Your task to perform on an android device: uninstall "Facebook Lite" Image 0: 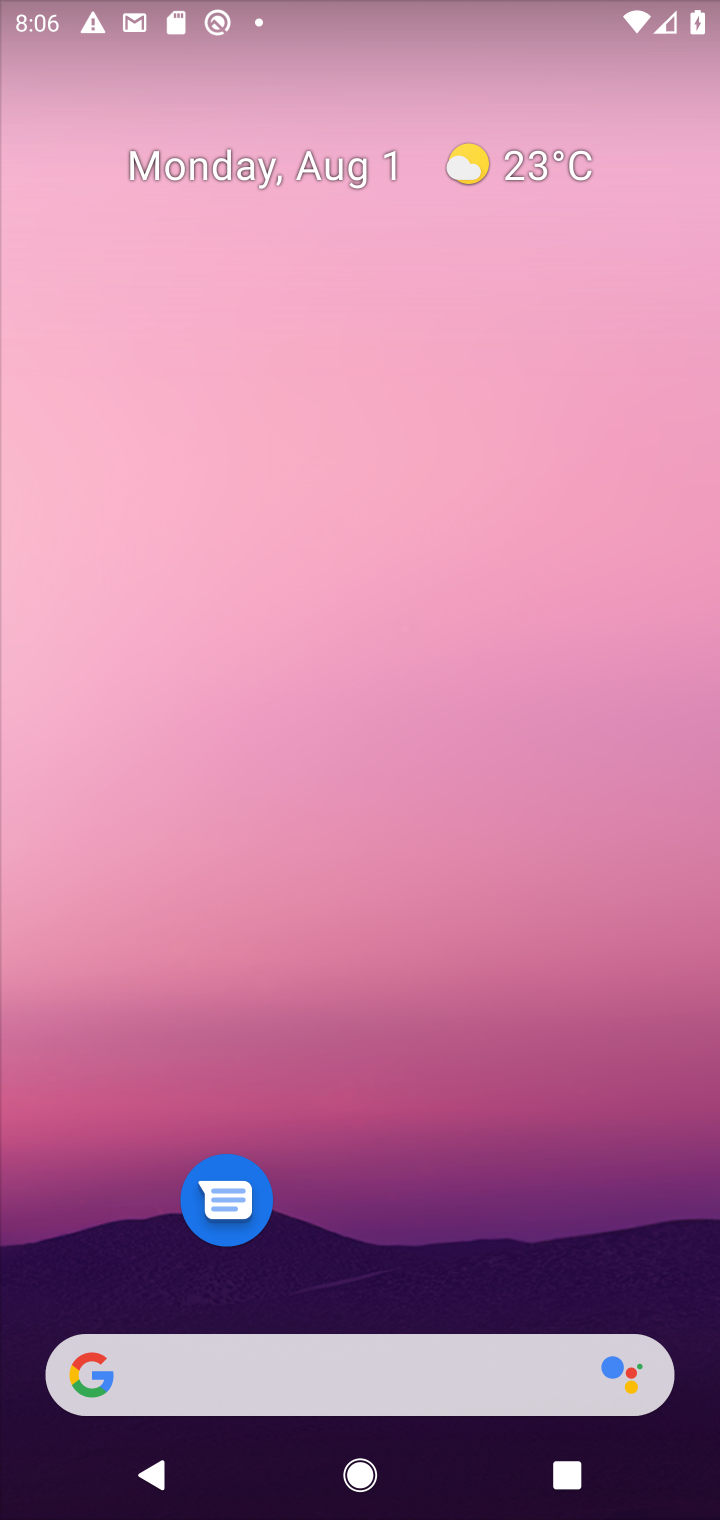
Step 0: press home button
Your task to perform on an android device: uninstall "Facebook Lite" Image 1: 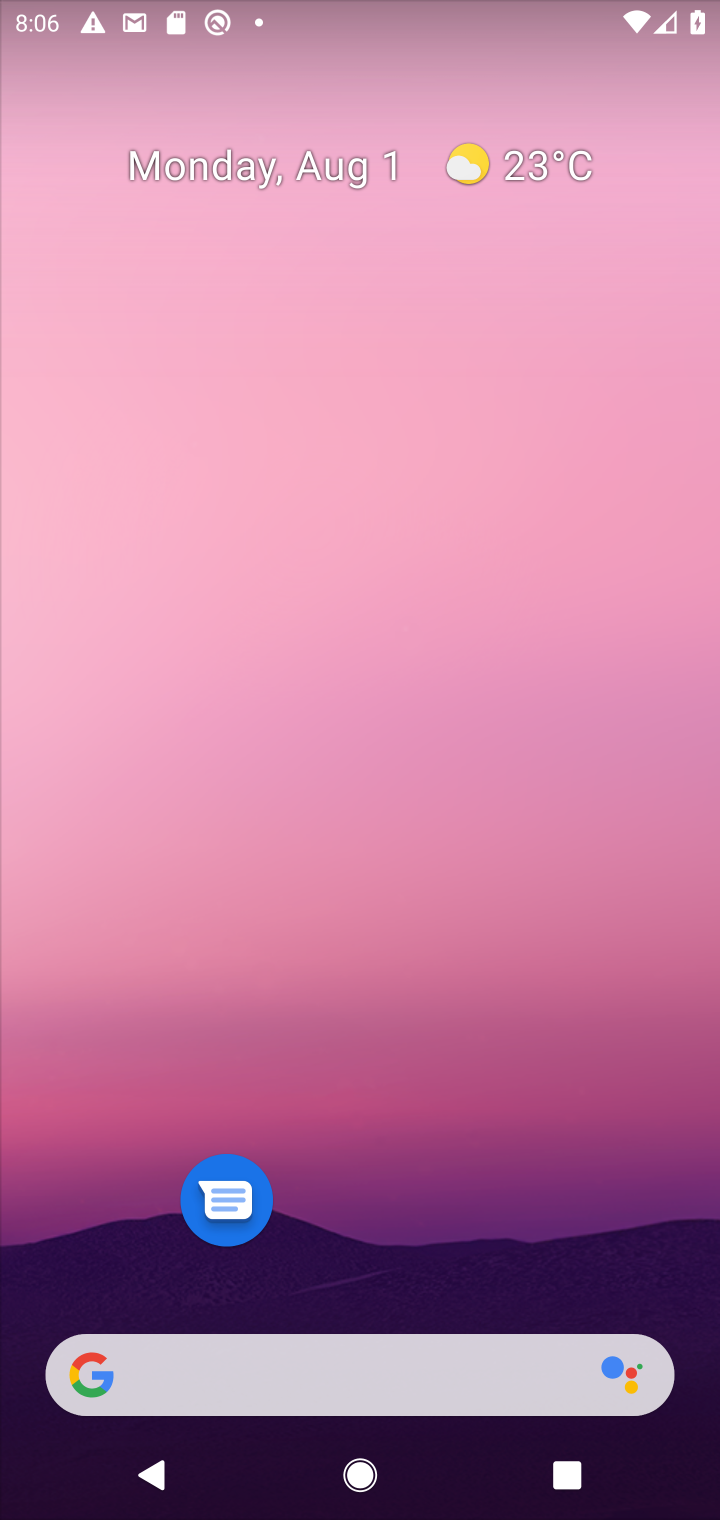
Step 1: drag from (424, 1176) to (536, 82)
Your task to perform on an android device: uninstall "Facebook Lite" Image 2: 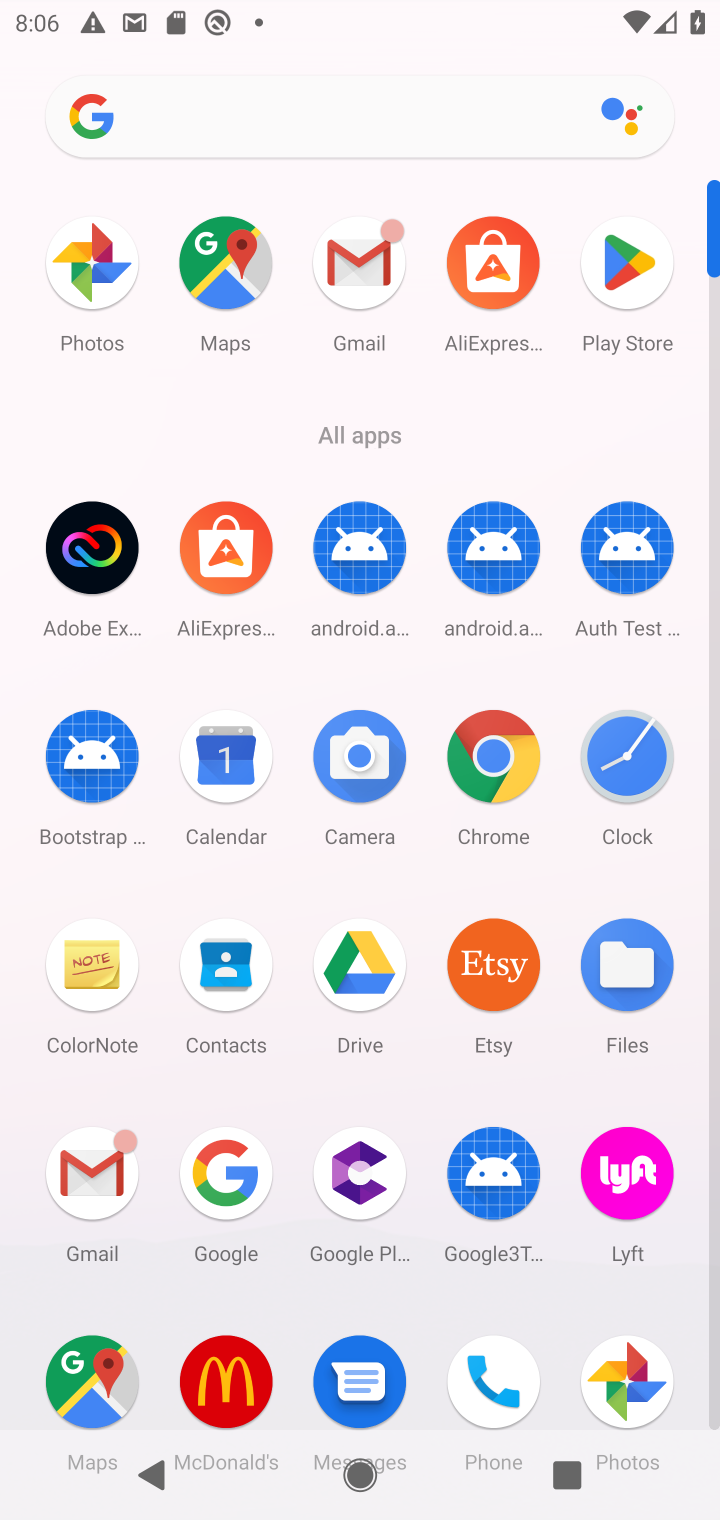
Step 2: click (626, 449)
Your task to perform on an android device: uninstall "Facebook Lite" Image 3: 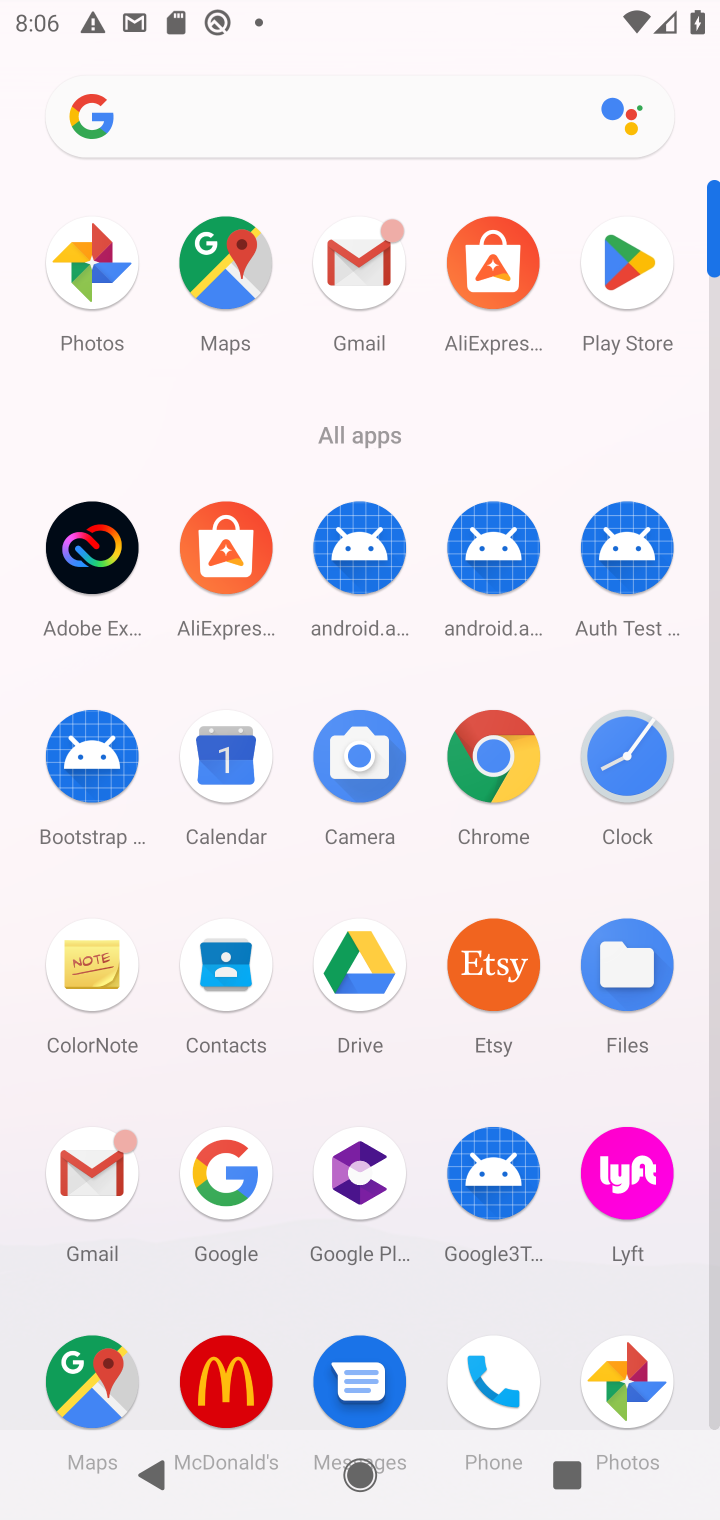
Step 3: click (647, 269)
Your task to perform on an android device: uninstall "Facebook Lite" Image 4: 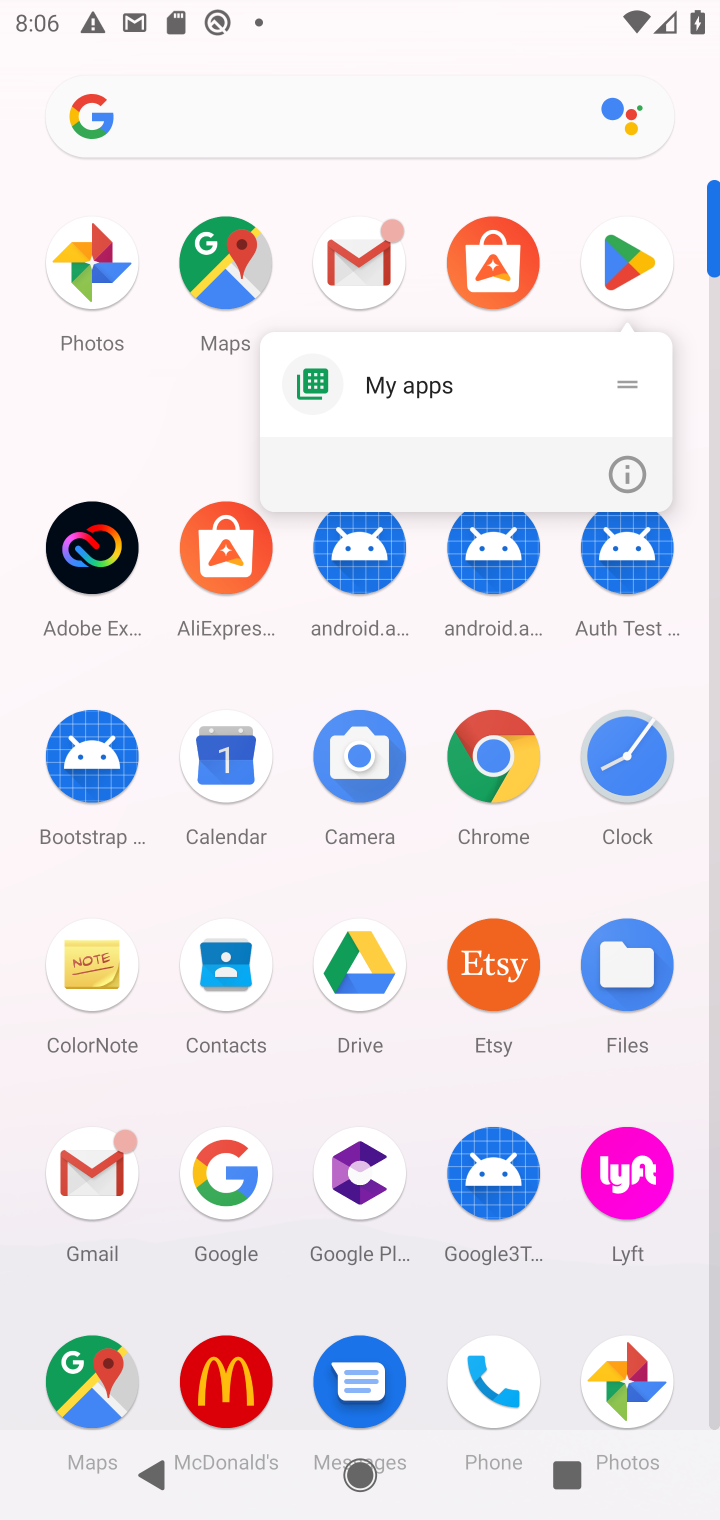
Step 4: click (628, 264)
Your task to perform on an android device: uninstall "Facebook Lite" Image 5: 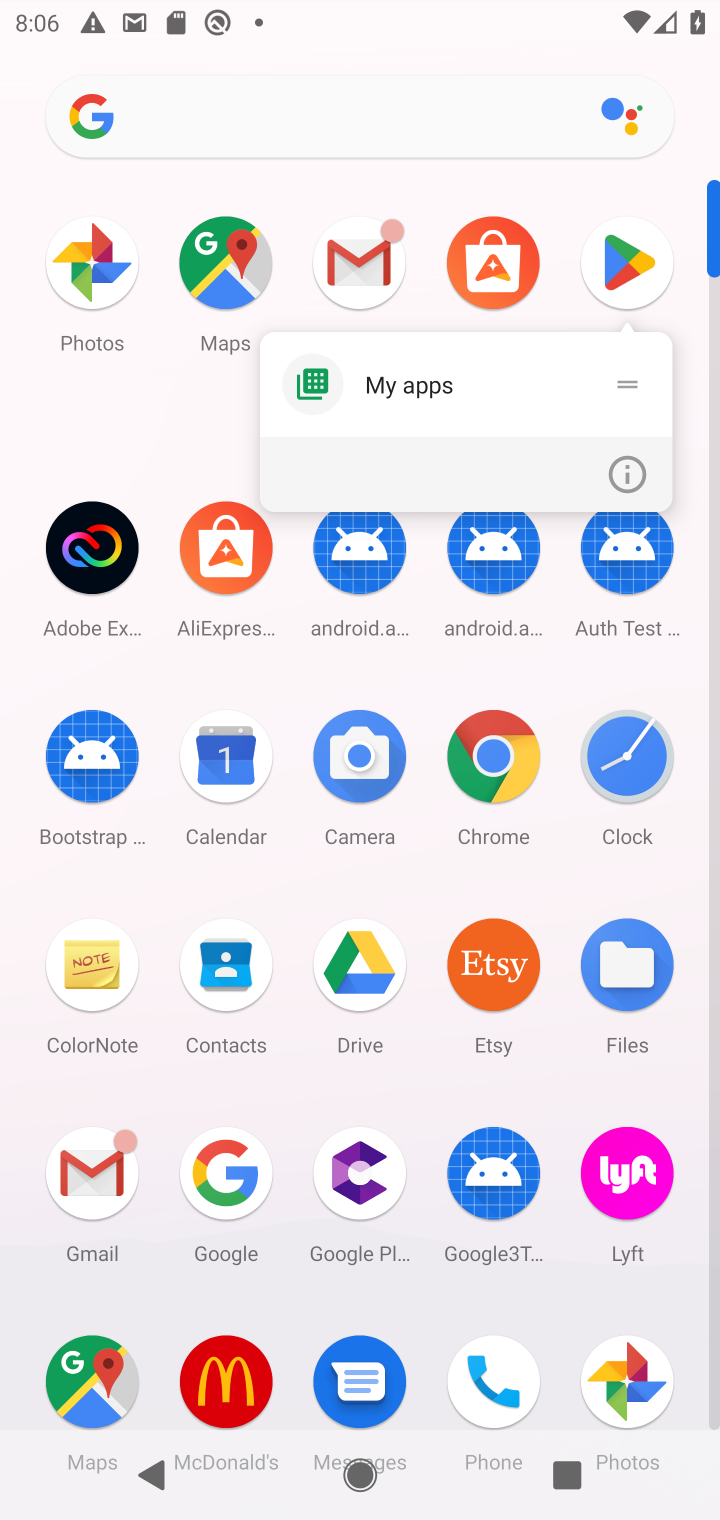
Step 5: click (618, 273)
Your task to perform on an android device: uninstall "Facebook Lite" Image 6: 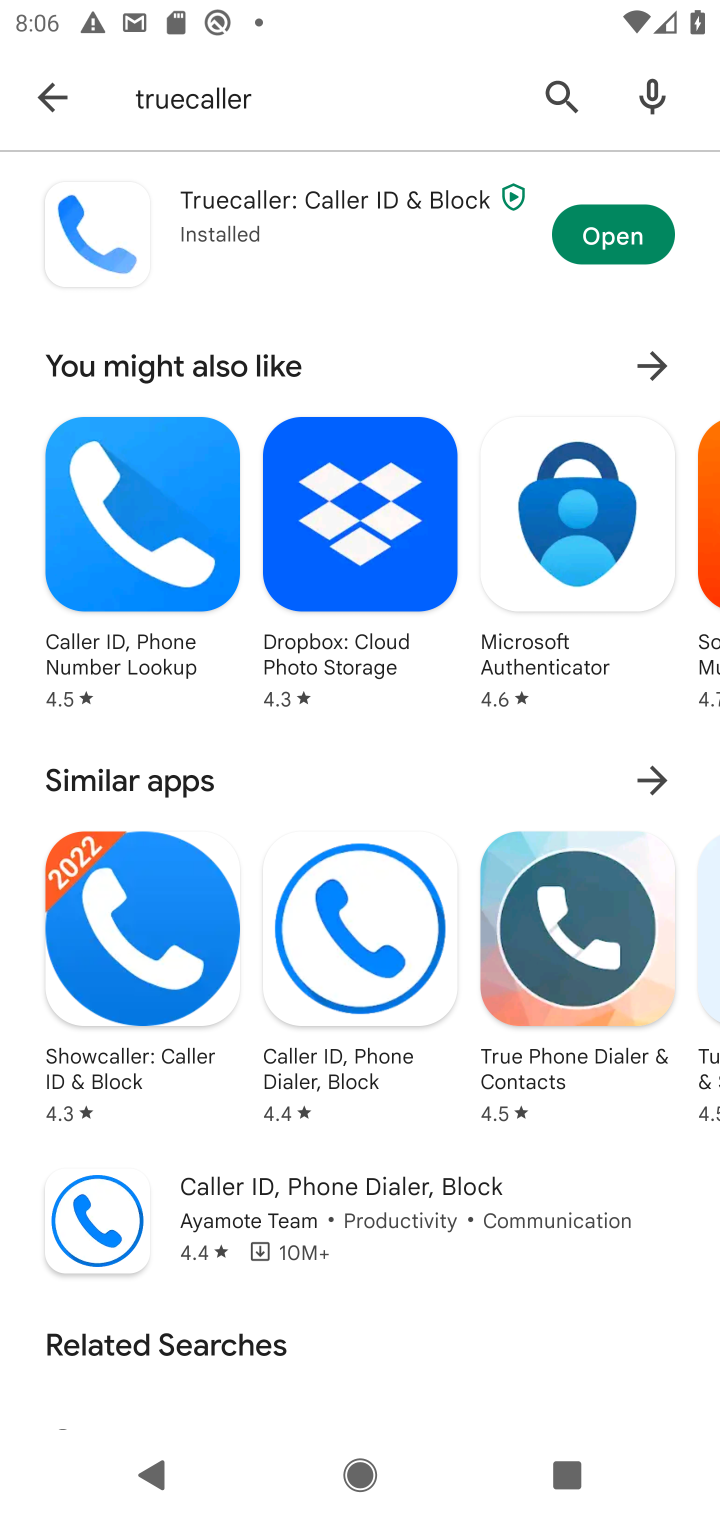
Step 6: click (573, 94)
Your task to perform on an android device: uninstall "Facebook Lite" Image 7: 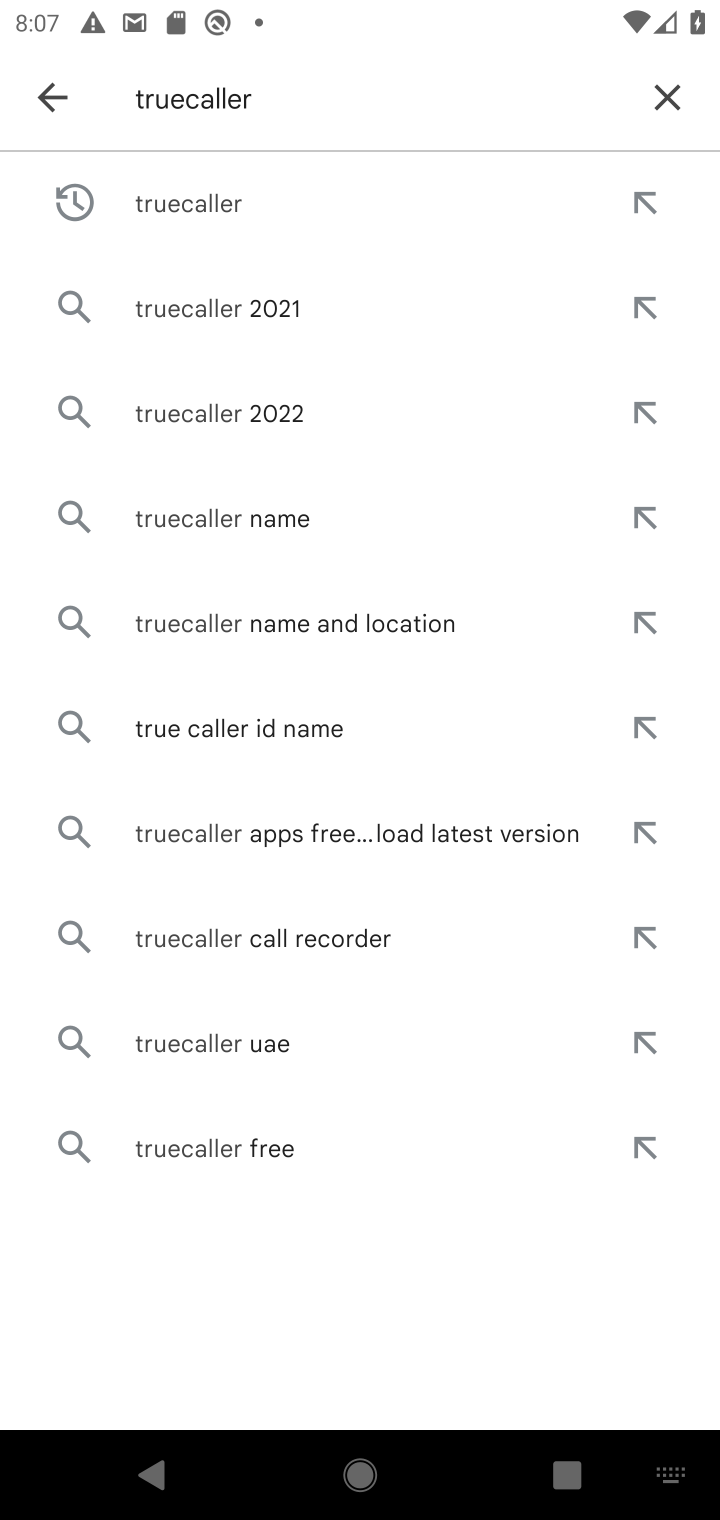
Step 7: click (675, 97)
Your task to perform on an android device: uninstall "Facebook Lite" Image 8: 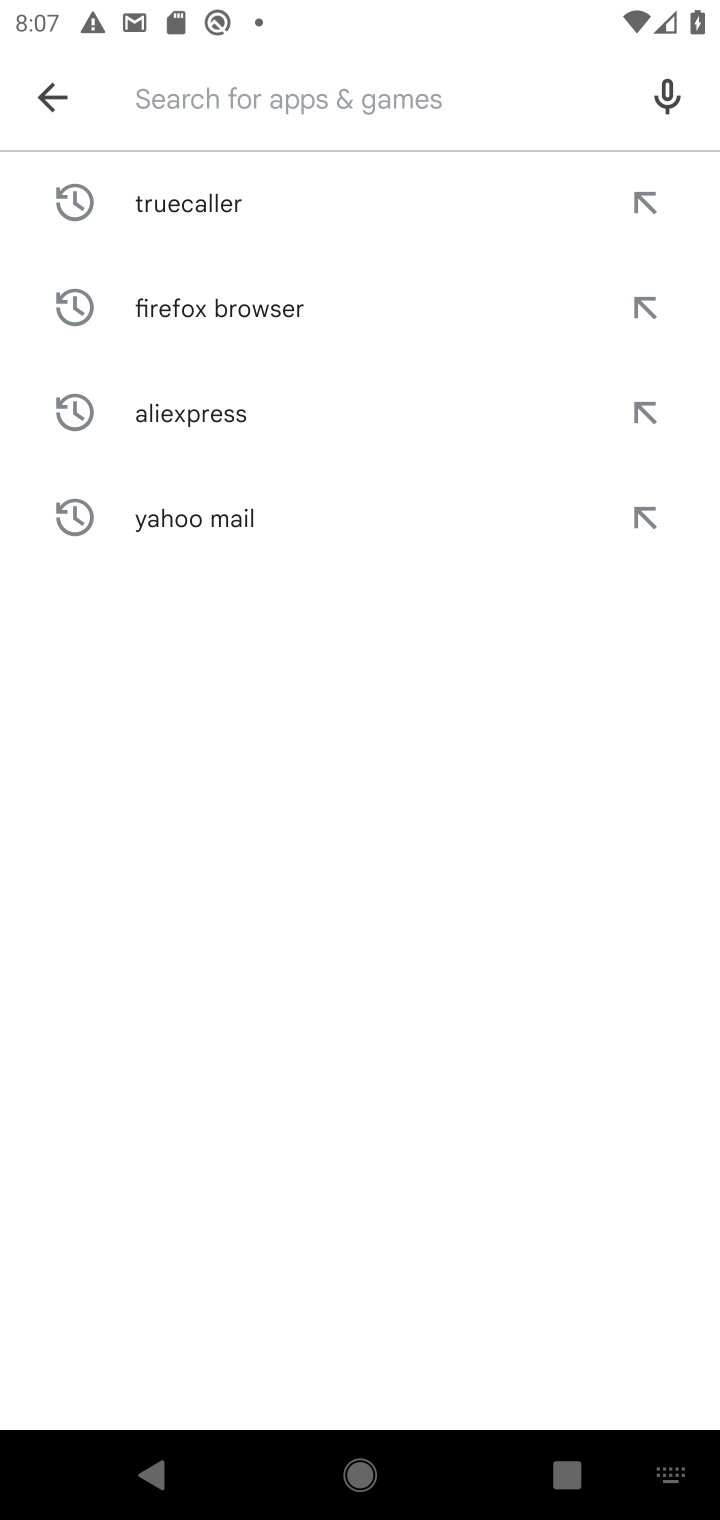
Step 8: type "Facebook Lite"
Your task to perform on an android device: uninstall "Facebook Lite" Image 9: 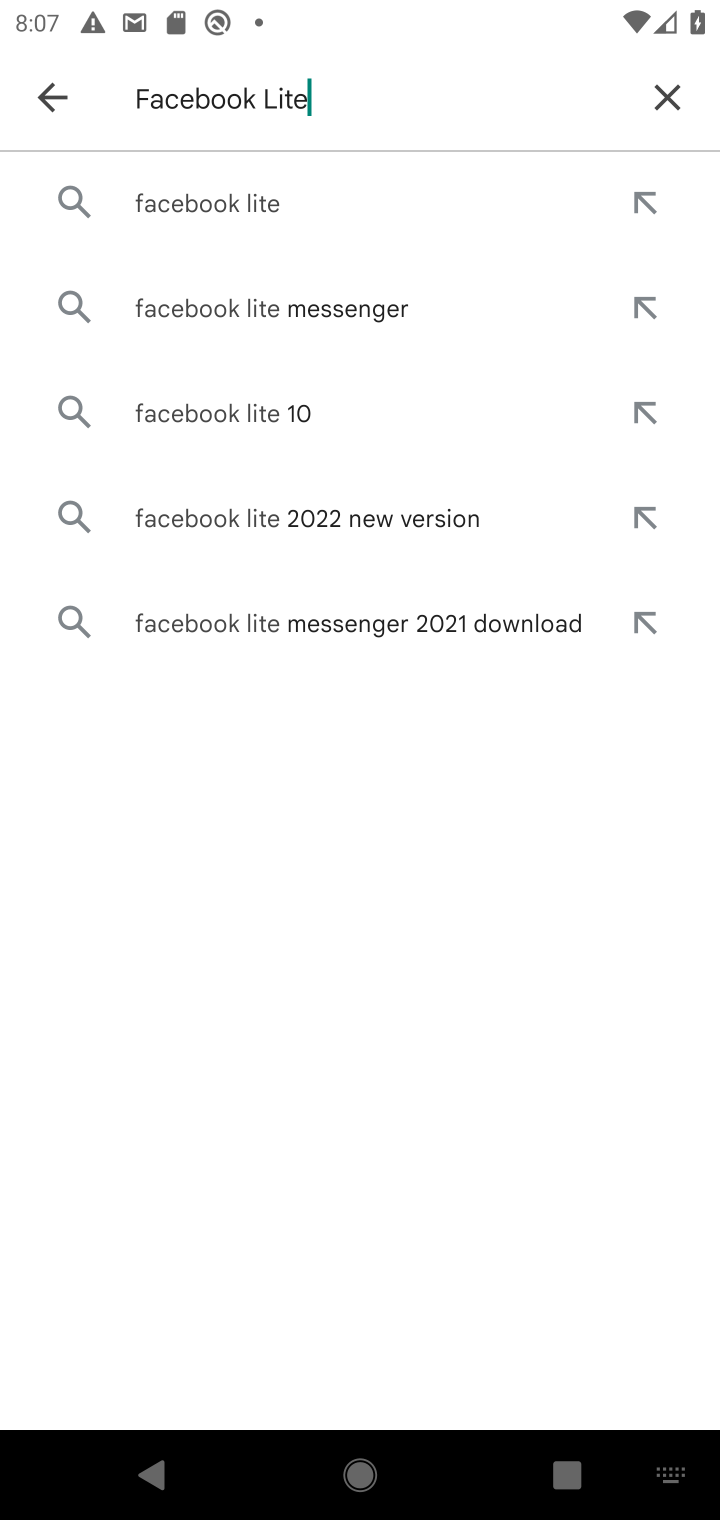
Step 9: click (251, 199)
Your task to perform on an android device: uninstall "Facebook Lite" Image 10: 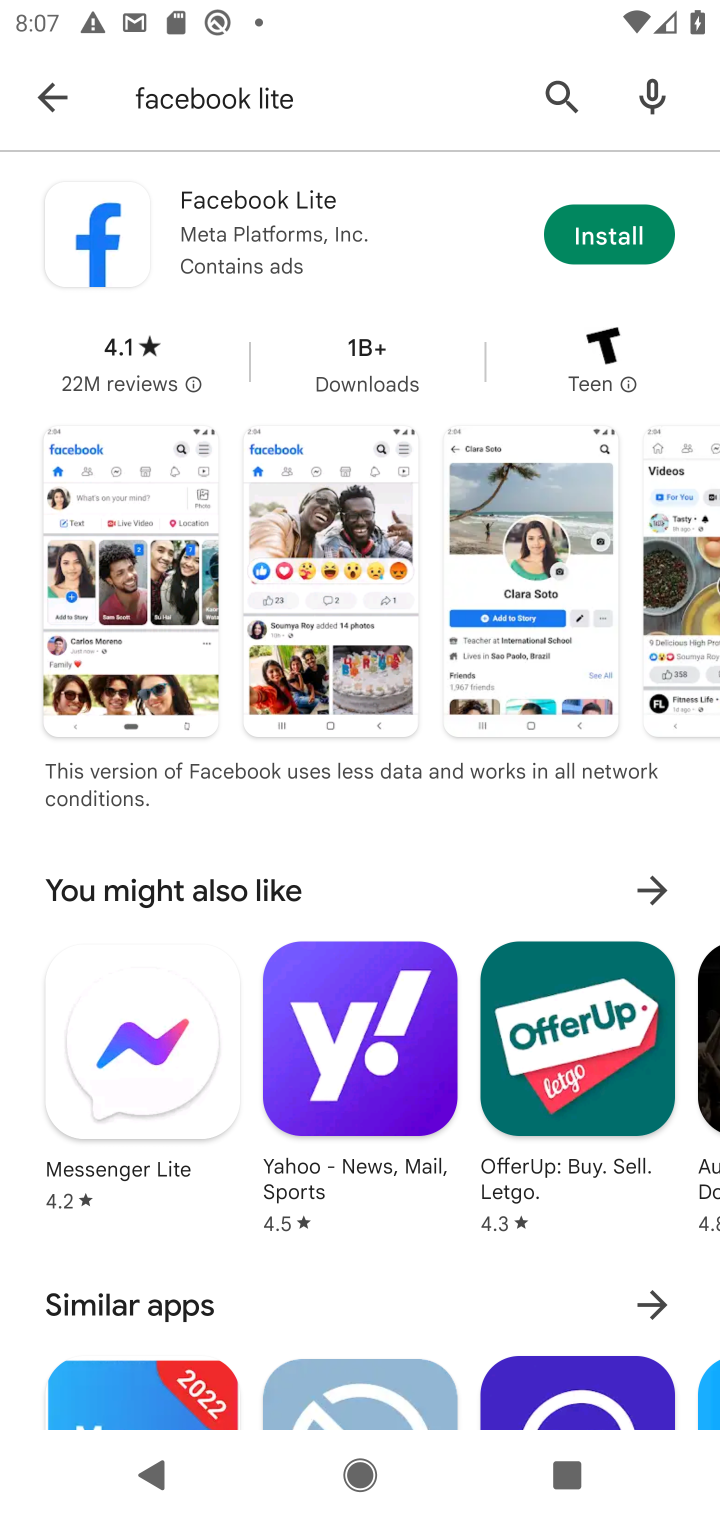
Step 10: task complete